Your task to perform on an android device: Search for Italian restaurants on Maps Image 0: 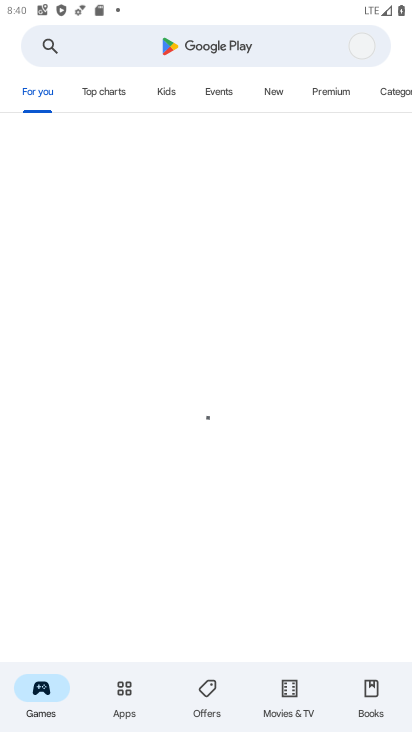
Step 0: press home button
Your task to perform on an android device: Search for Italian restaurants on Maps Image 1: 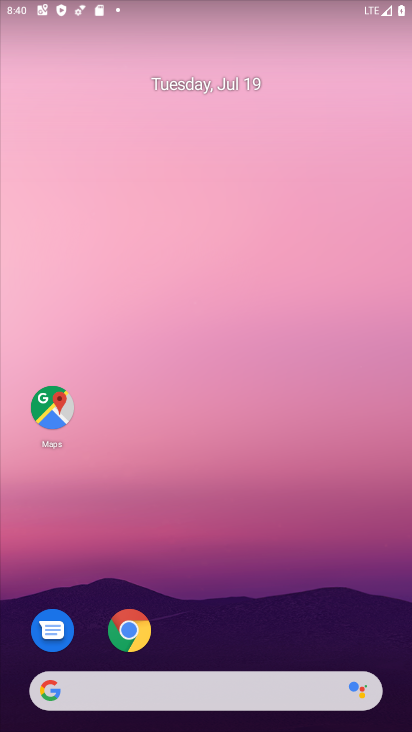
Step 1: drag from (240, 30) to (193, 11)
Your task to perform on an android device: Search for Italian restaurants on Maps Image 2: 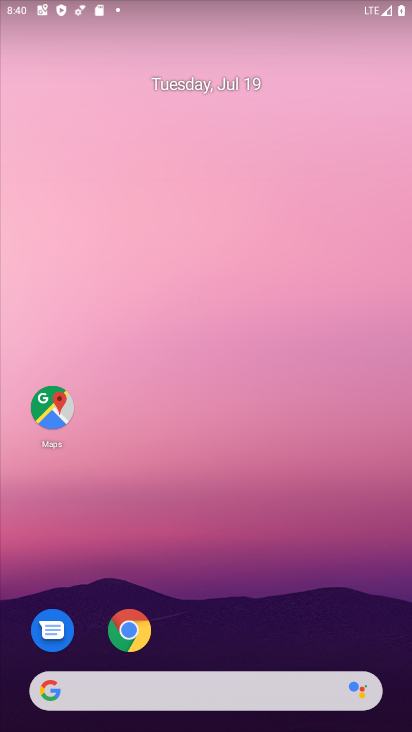
Step 2: drag from (199, 682) to (283, 112)
Your task to perform on an android device: Search for Italian restaurants on Maps Image 3: 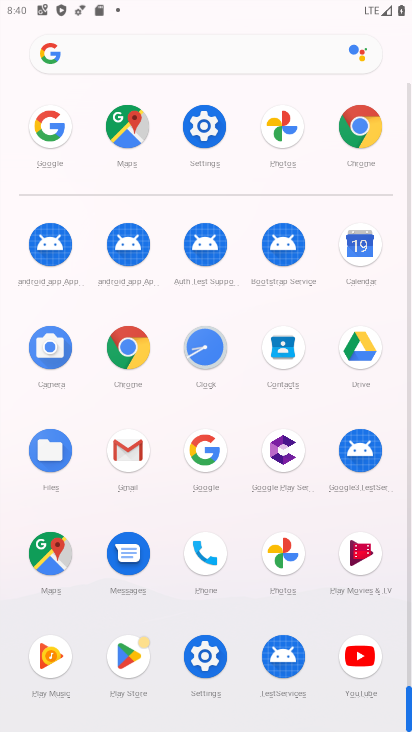
Step 3: click (56, 565)
Your task to perform on an android device: Search for Italian restaurants on Maps Image 4: 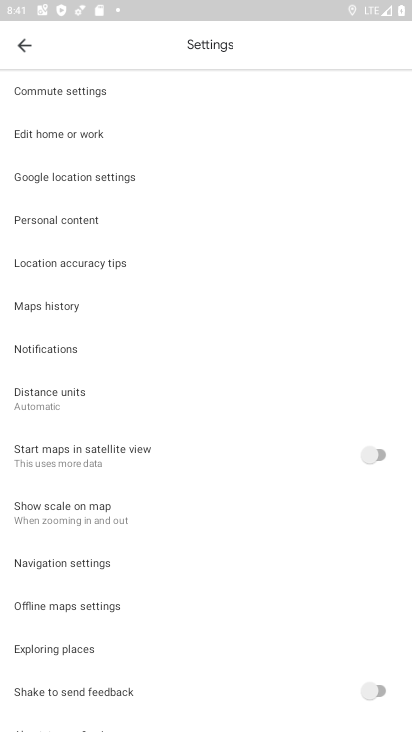
Step 4: press back button
Your task to perform on an android device: Search for Italian restaurants on Maps Image 5: 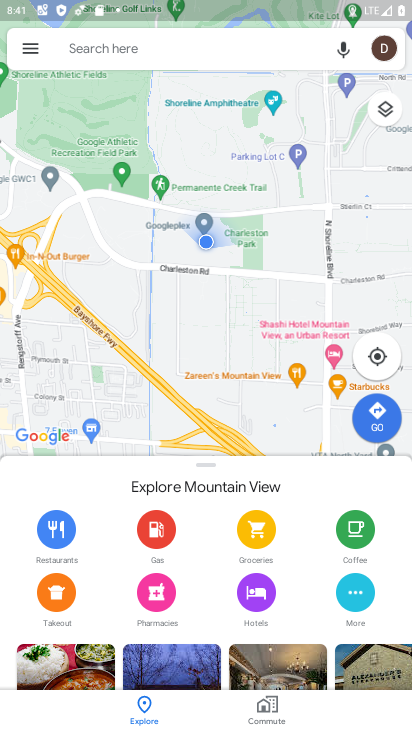
Step 5: click (156, 44)
Your task to perform on an android device: Search for Italian restaurants on Maps Image 6: 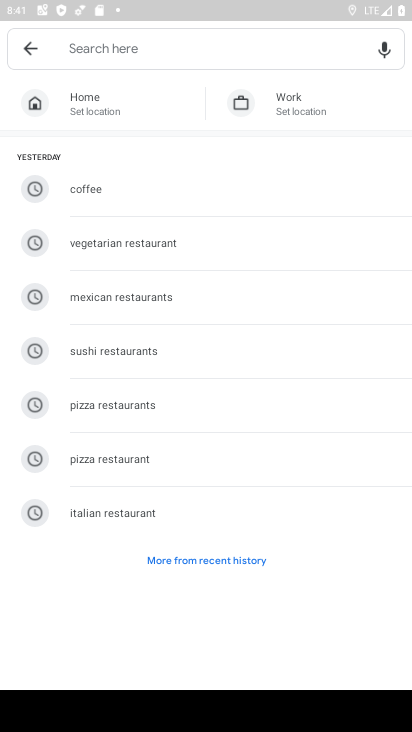
Step 6: click (107, 510)
Your task to perform on an android device: Search for Italian restaurants on Maps Image 7: 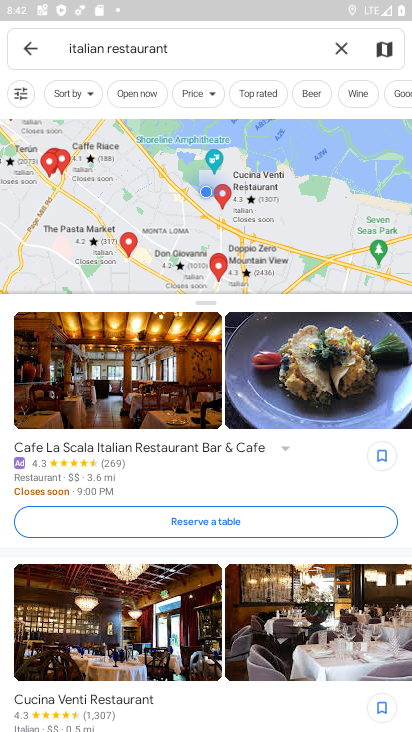
Step 7: task complete